Your task to perform on an android device: turn on priority inbox in the gmail app Image 0: 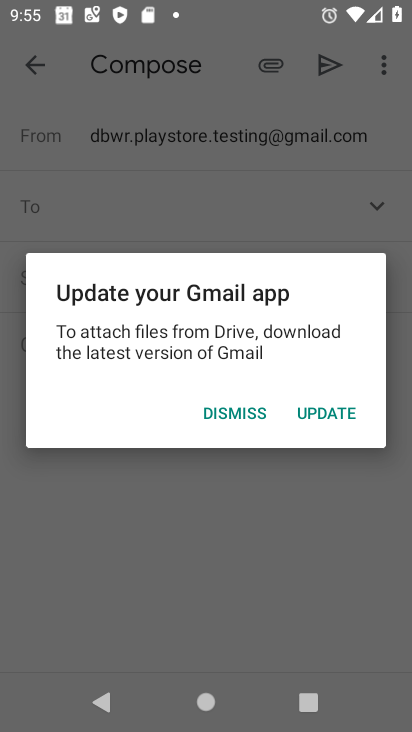
Step 0: press home button
Your task to perform on an android device: turn on priority inbox in the gmail app Image 1: 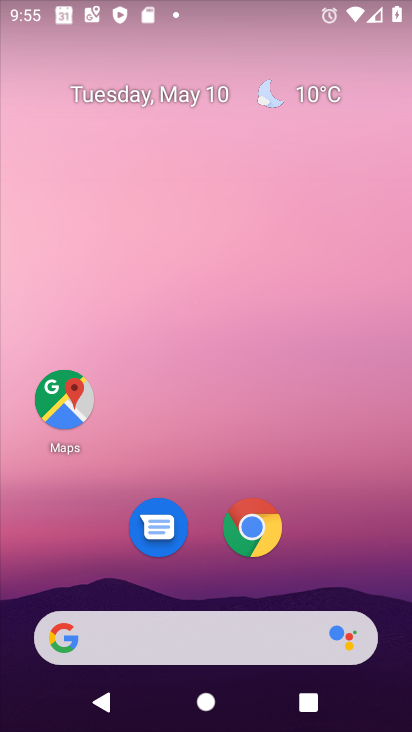
Step 1: drag from (232, 709) to (232, 147)
Your task to perform on an android device: turn on priority inbox in the gmail app Image 2: 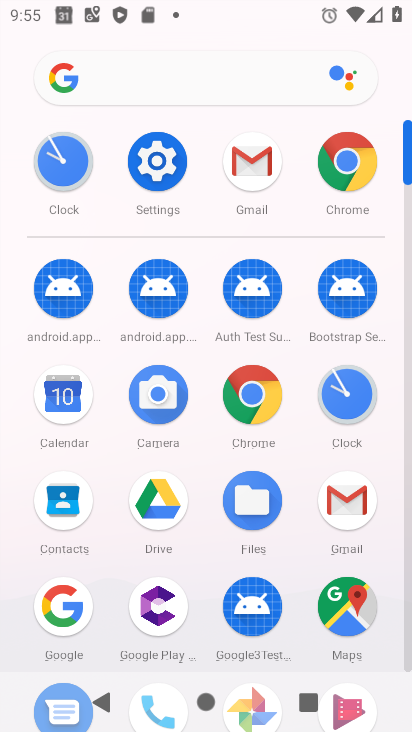
Step 2: click (258, 152)
Your task to perform on an android device: turn on priority inbox in the gmail app Image 3: 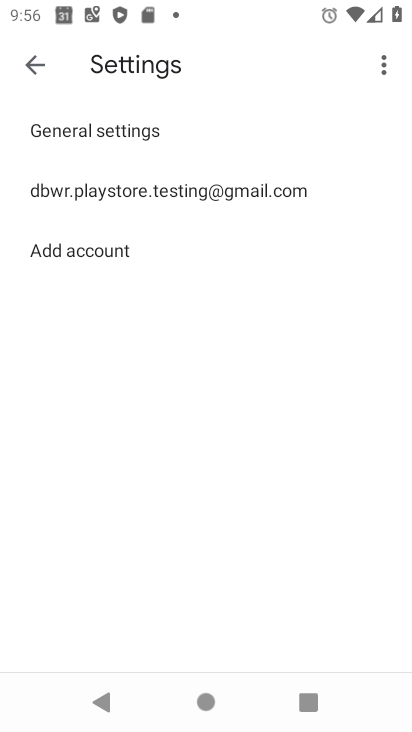
Step 3: click (222, 196)
Your task to perform on an android device: turn on priority inbox in the gmail app Image 4: 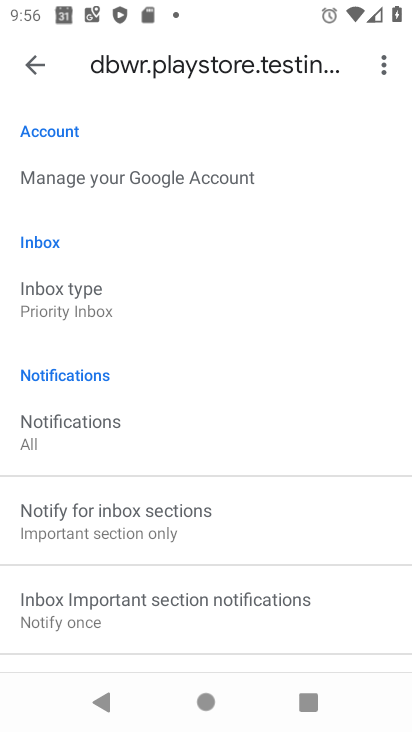
Step 4: task complete